Your task to perform on an android device: See recent photos Image 0: 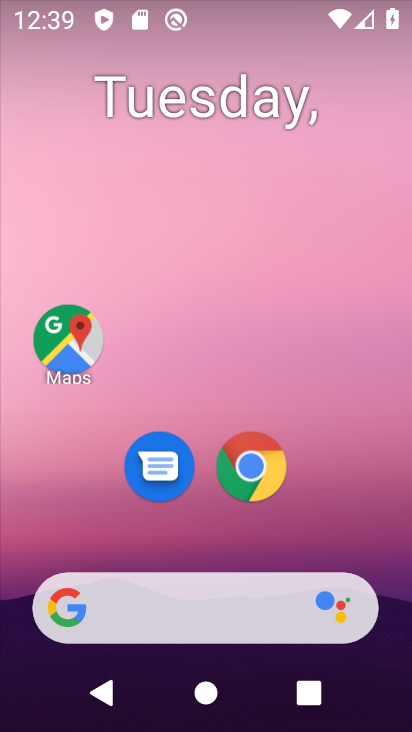
Step 0: drag from (377, 521) to (237, 23)
Your task to perform on an android device: See recent photos Image 1: 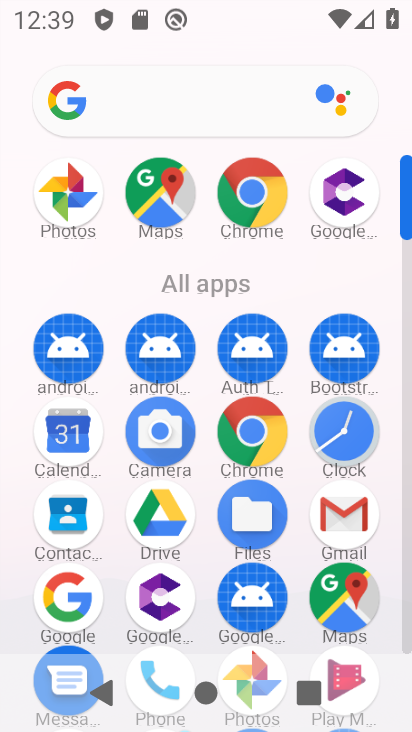
Step 1: click (68, 203)
Your task to perform on an android device: See recent photos Image 2: 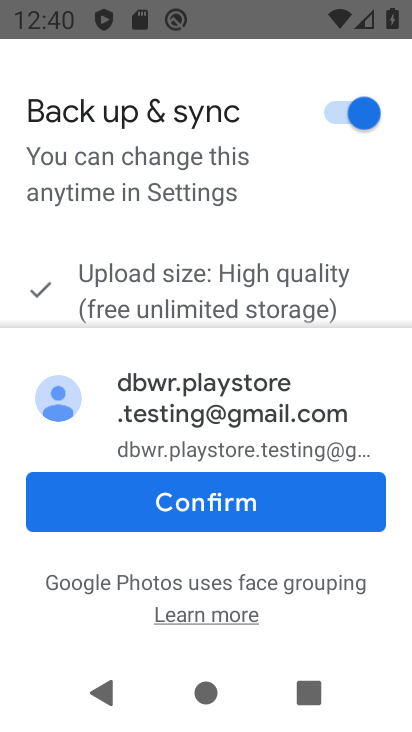
Step 2: click (138, 478)
Your task to perform on an android device: See recent photos Image 3: 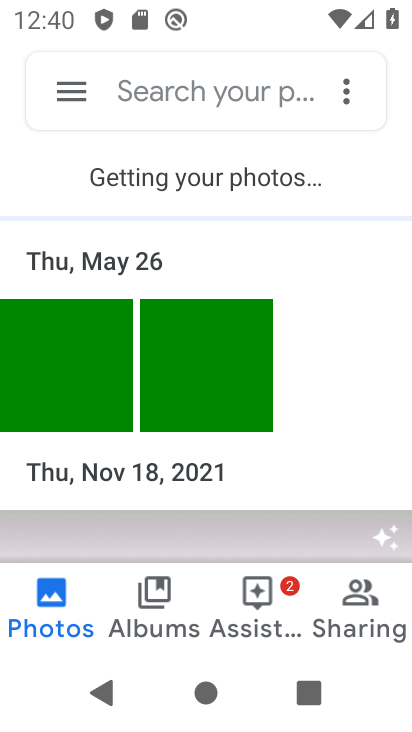
Step 3: click (55, 80)
Your task to perform on an android device: See recent photos Image 4: 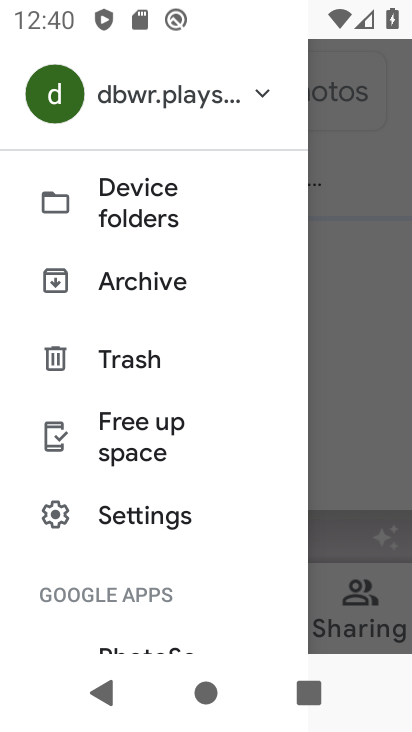
Step 4: click (101, 280)
Your task to perform on an android device: See recent photos Image 5: 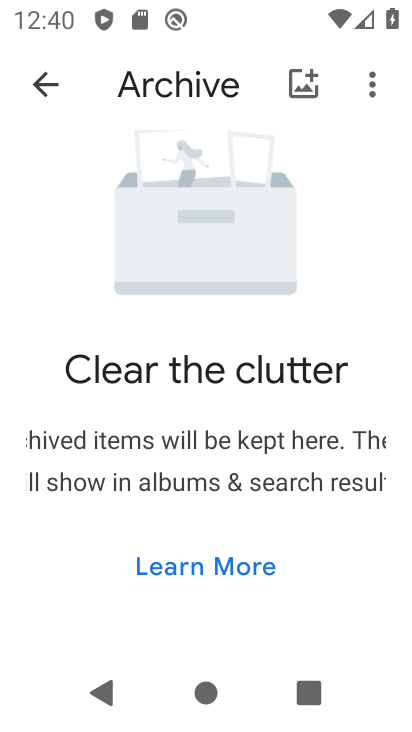
Step 5: task complete